Your task to perform on an android device: install app "eBay: The shopping marketplace" Image 0: 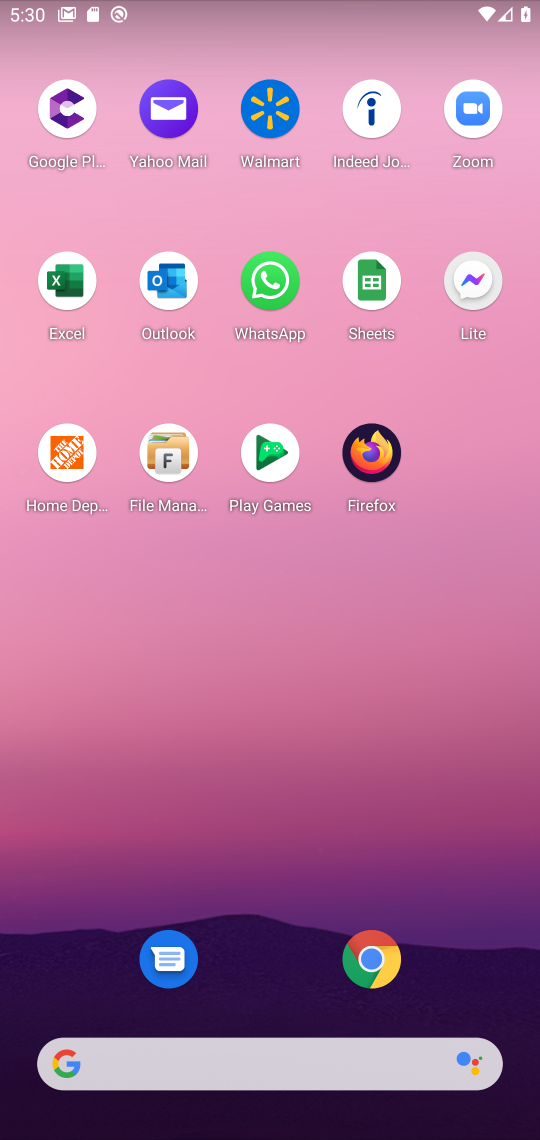
Step 0: drag from (272, 470) to (294, 110)
Your task to perform on an android device: install app "eBay: The shopping marketplace" Image 1: 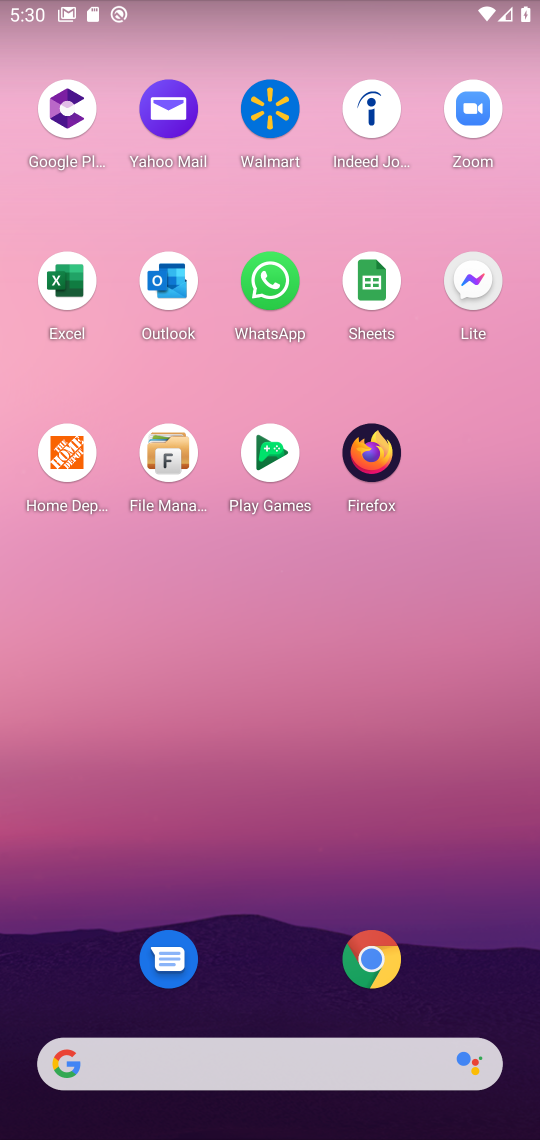
Step 1: drag from (208, 1043) to (302, 266)
Your task to perform on an android device: install app "eBay: The shopping marketplace" Image 2: 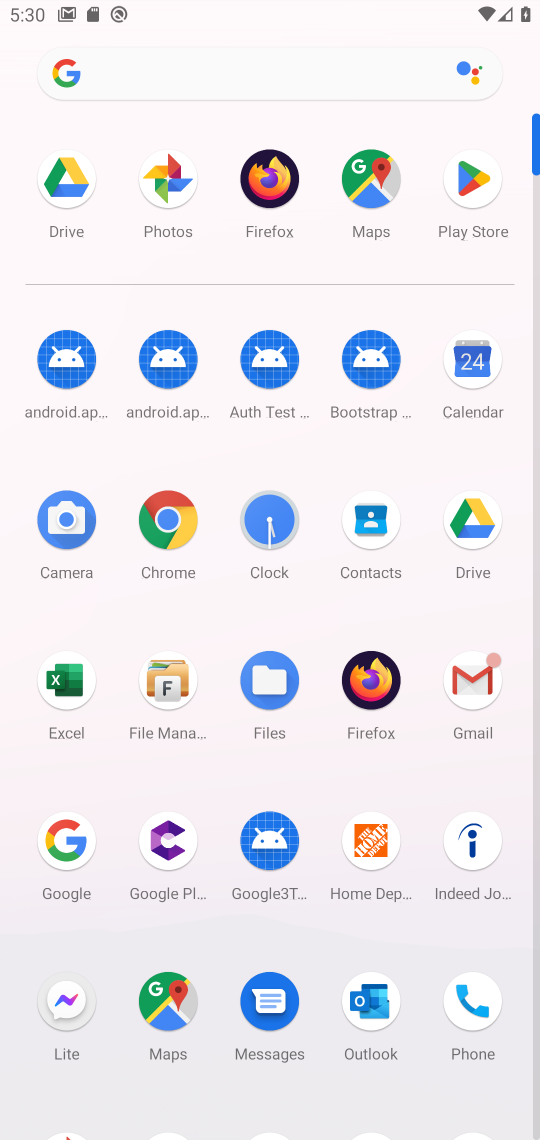
Step 2: click (481, 173)
Your task to perform on an android device: install app "eBay: The shopping marketplace" Image 3: 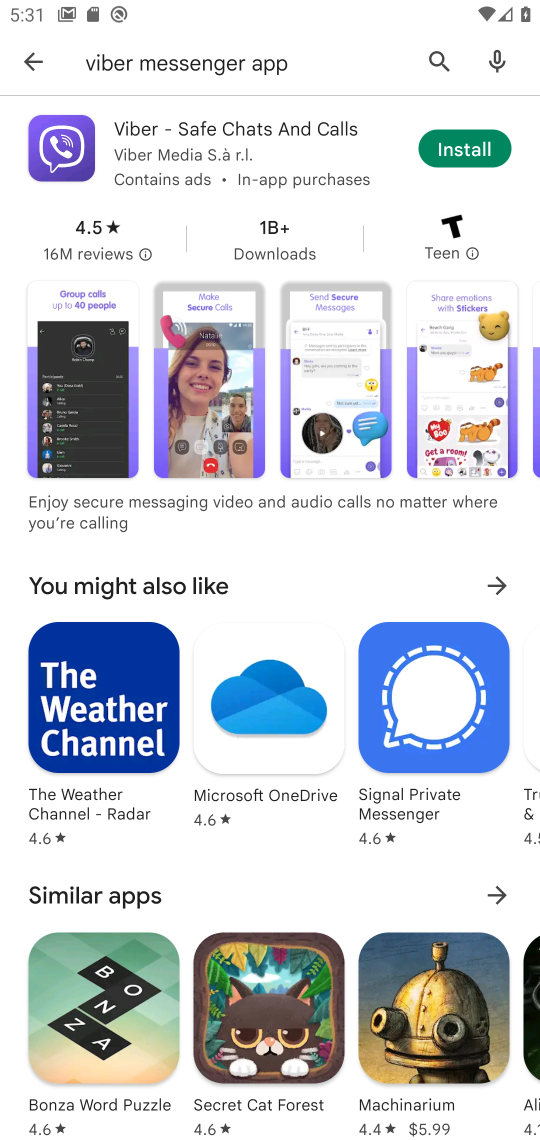
Step 3: press home button
Your task to perform on an android device: install app "eBay: The shopping marketplace" Image 4: 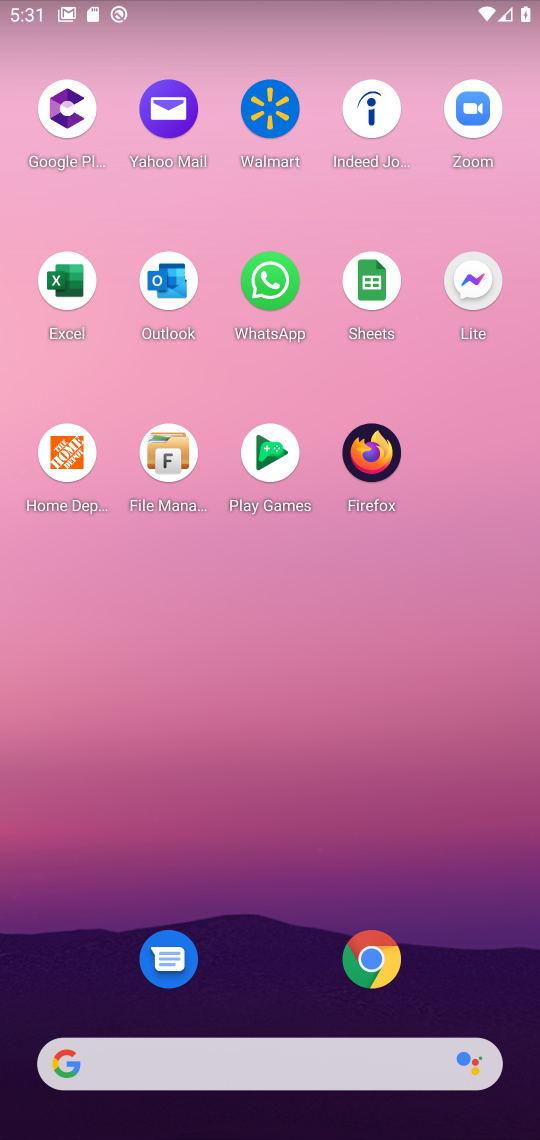
Step 4: drag from (238, 1028) to (294, 174)
Your task to perform on an android device: install app "eBay: The shopping marketplace" Image 5: 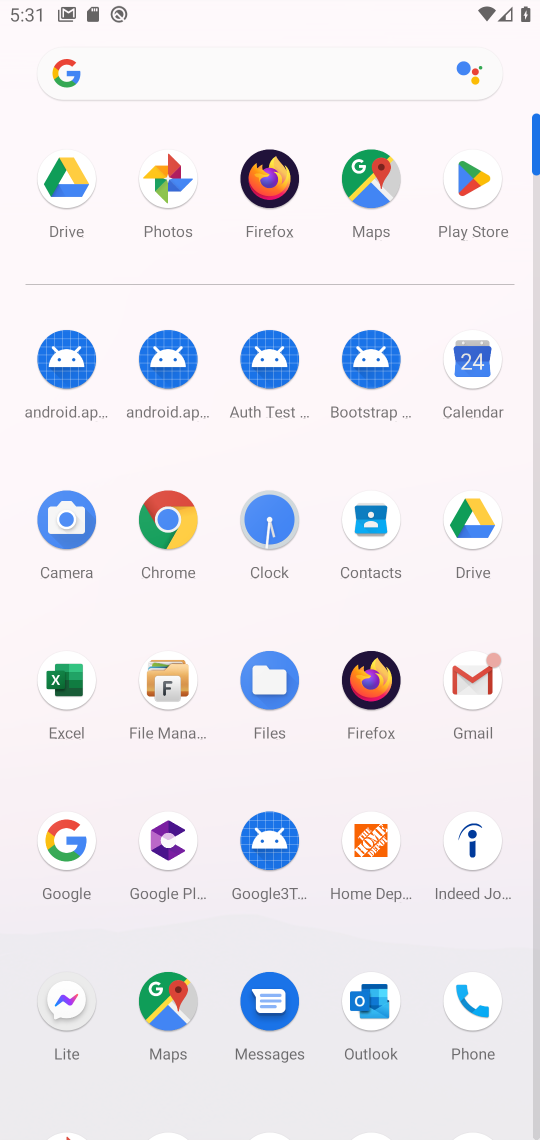
Step 5: click (455, 187)
Your task to perform on an android device: install app "eBay: The shopping marketplace" Image 6: 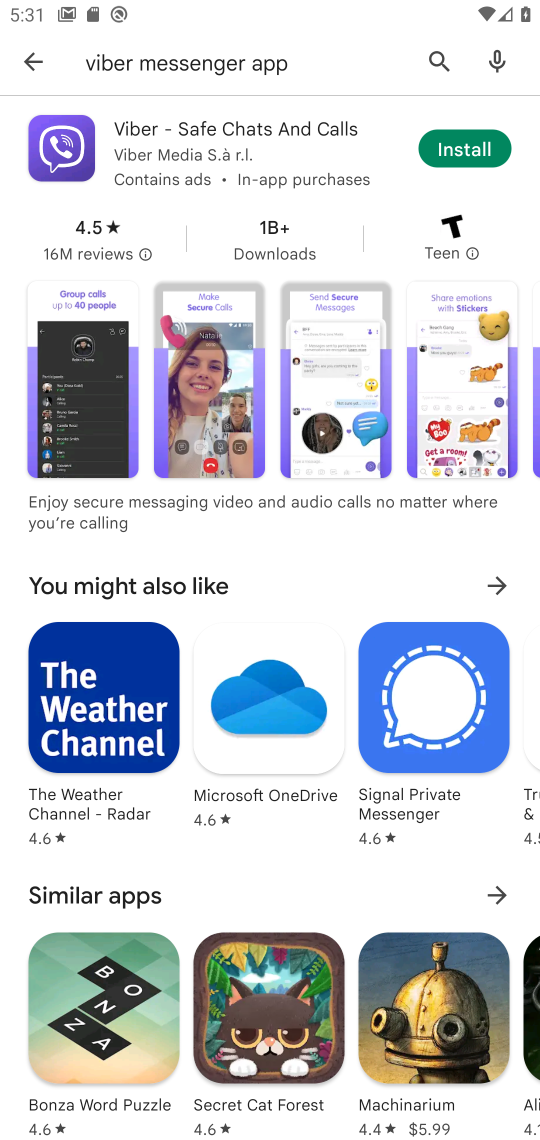
Step 6: click (426, 58)
Your task to perform on an android device: install app "eBay: The shopping marketplace" Image 7: 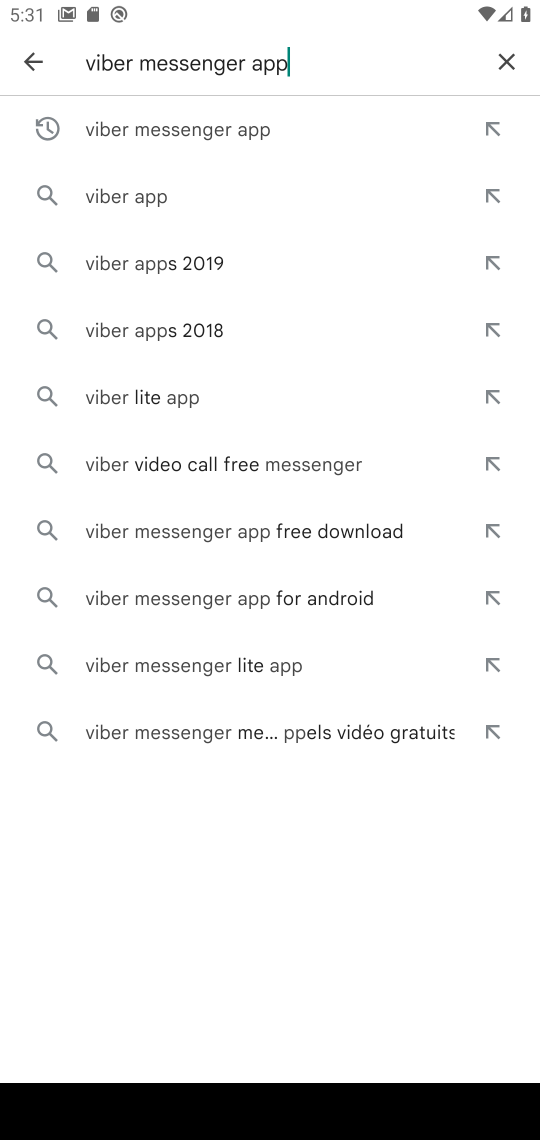
Step 7: click (508, 62)
Your task to perform on an android device: install app "eBay: The shopping marketplace" Image 8: 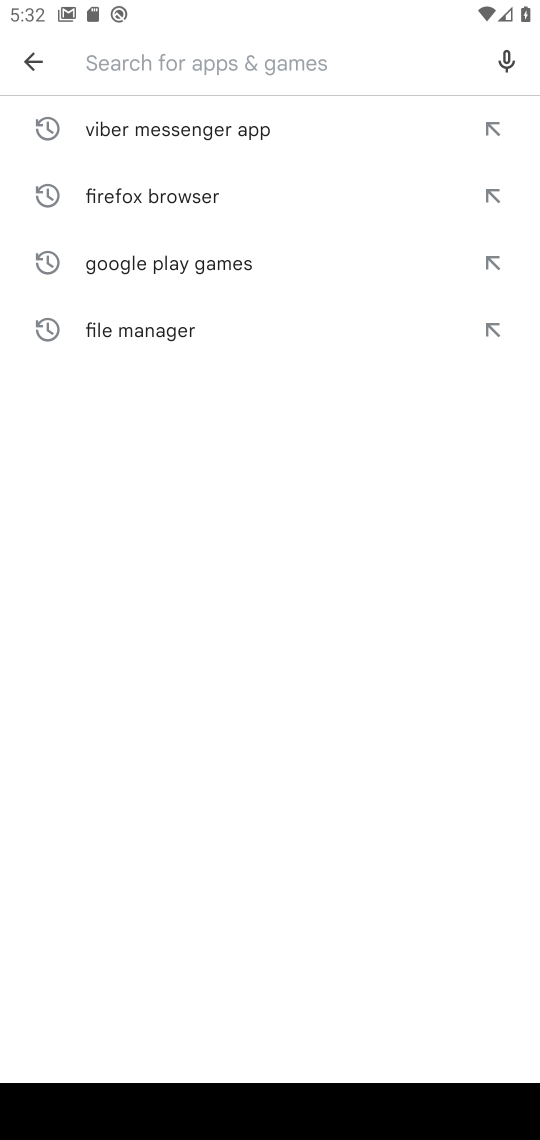
Step 8: type "eBay: The shopping marketplace"
Your task to perform on an android device: install app "eBay: The shopping marketplace" Image 9: 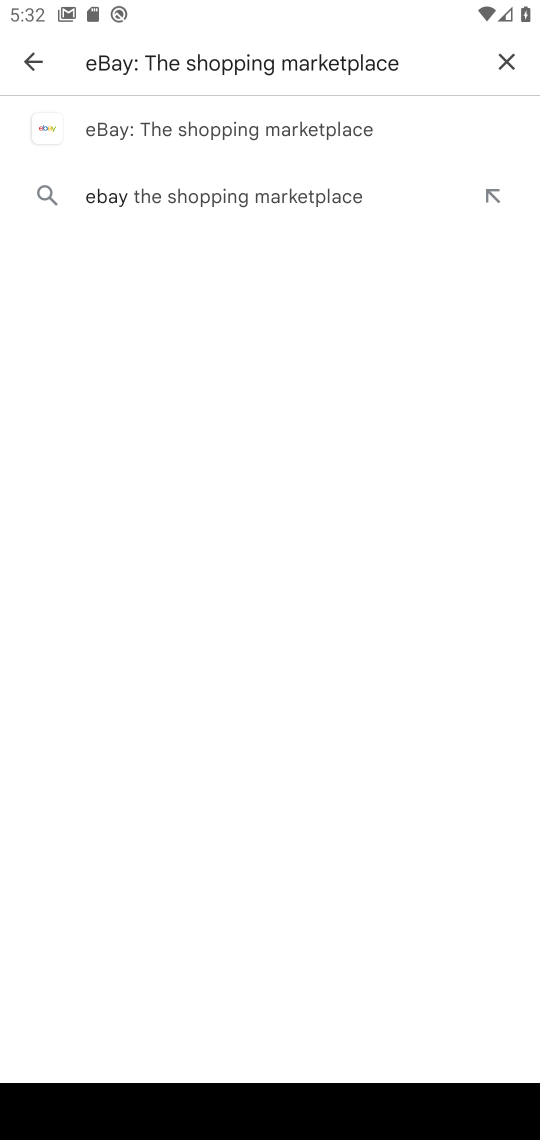
Step 9: click (218, 119)
Your task to perform on an android device: install app "eBay: The shopping marketplace" Image 10: 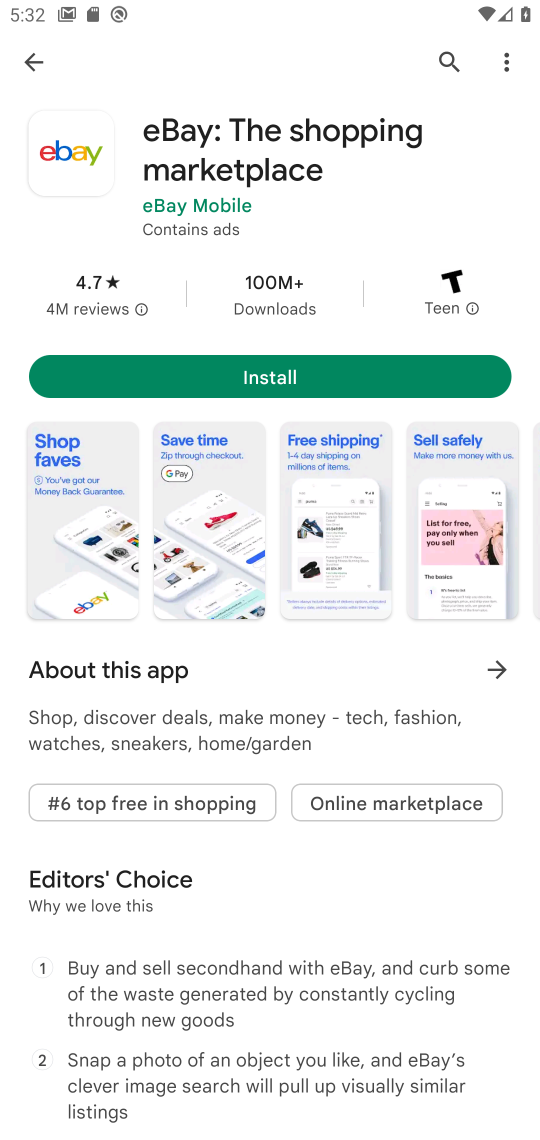
Step 10: click (295, 374)
Your task to perform on an android device: install app "eBay: The shopping marketplace" Image 11: 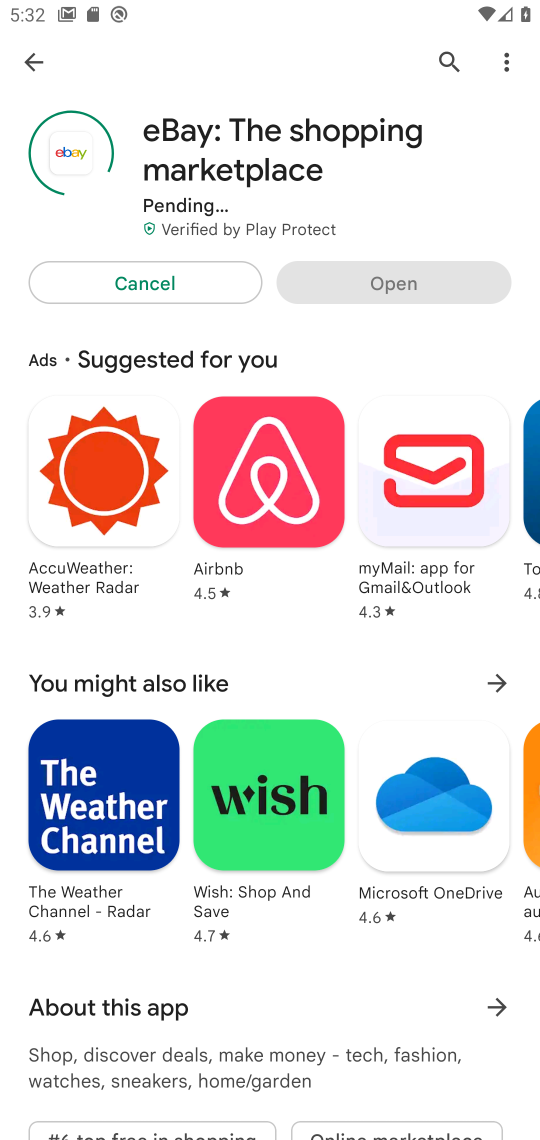
Step 11: task complete